Your task to perform on an android device: change the clock display to analog Image 0: 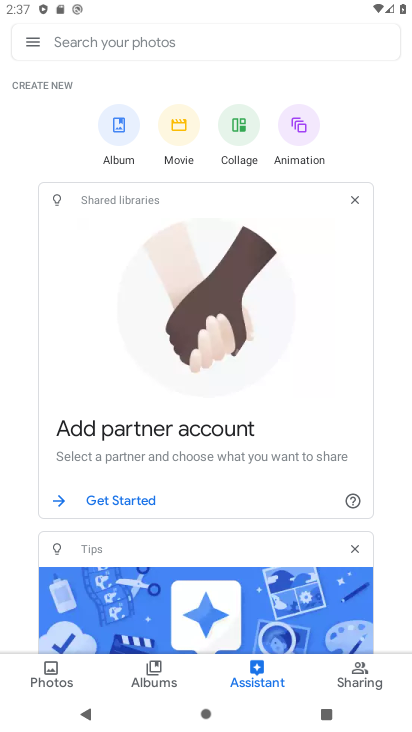
Step 0: press home button
Your task to perform on an android device: change the clock display to analog Image 1: 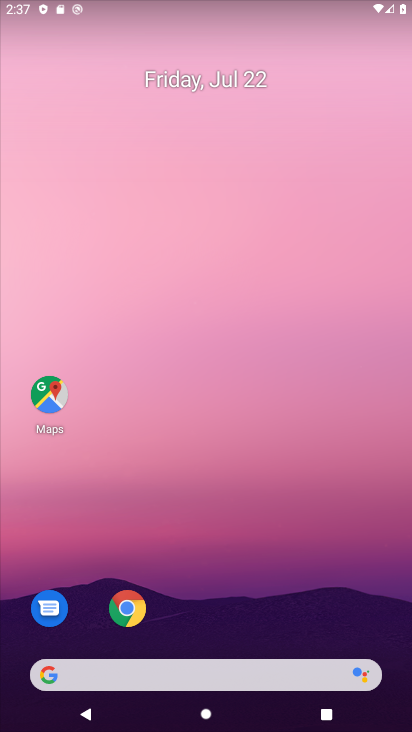
Step 1: click (304, 595)
Your task to perform on an android device: change the clock display to analog Image 2: 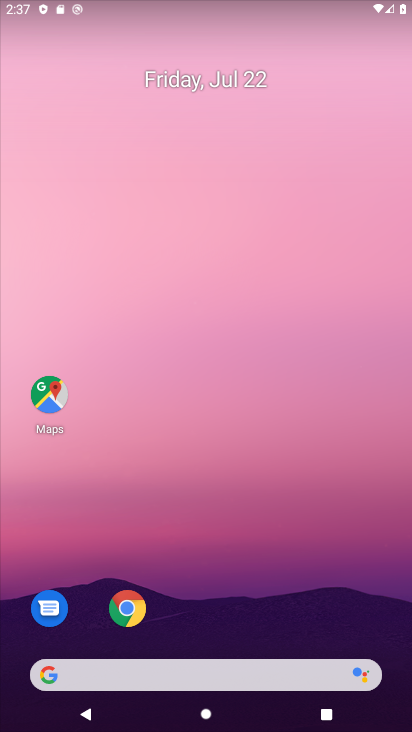
Step 2: drag from (304, 595) to (252, 51)
Your task to perform on an android device: change the clock display to analog Image 3: 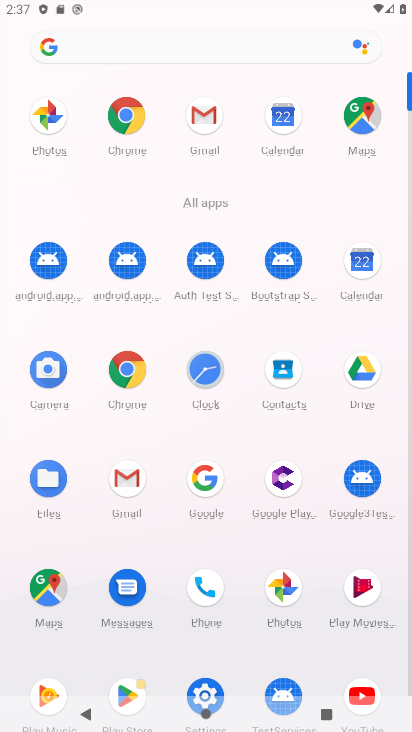
Step 3: click (213, 363)
Your task to perform on an android device: change the clock display to analog Image 4: 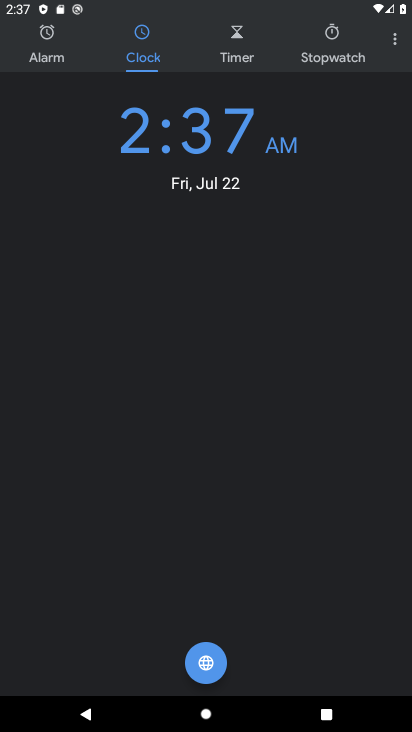
Step 4: click (403, 34)
Your task to perform on an android device: change the clock display to analog Image 5: 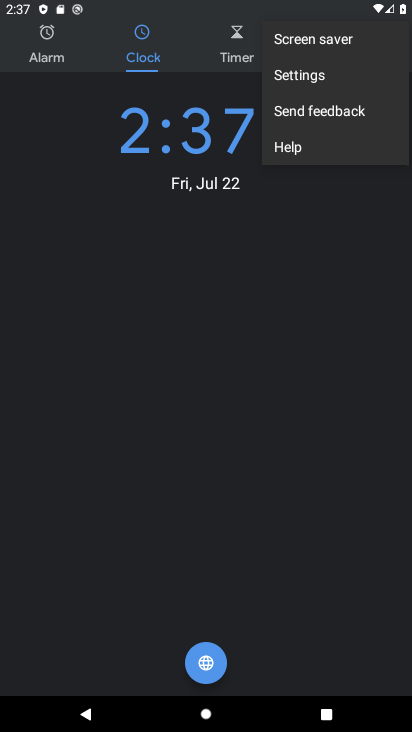
Step 5: click (295, 72)
Your task to perform on an android device: change the clock display to analog Image 6: 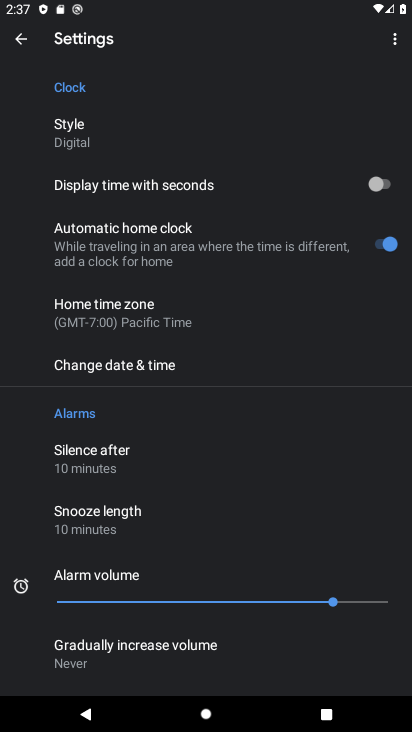
Step 6: click (179, 142)
Your task to perform on an android device: change the clock display to analog Image 7: 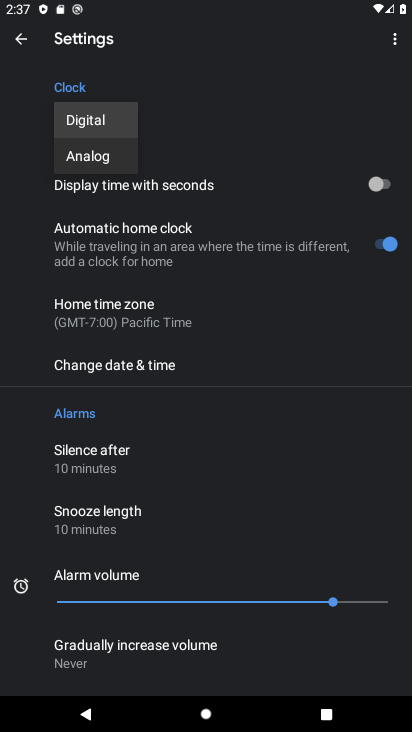
Step 7: click (103, 156)
Your task to perform on an android device: change the clock display to analog Image 8: 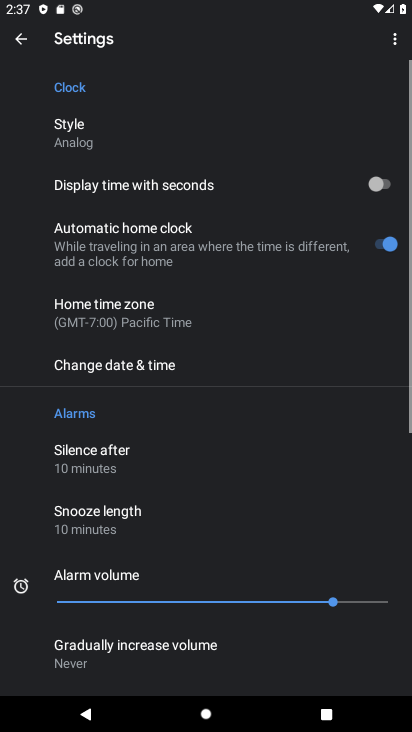
Step 8: task complete